Your task to perform on an android device: Empty the shopping cart on target. Add logitech g pro to the cart on target Image 0: 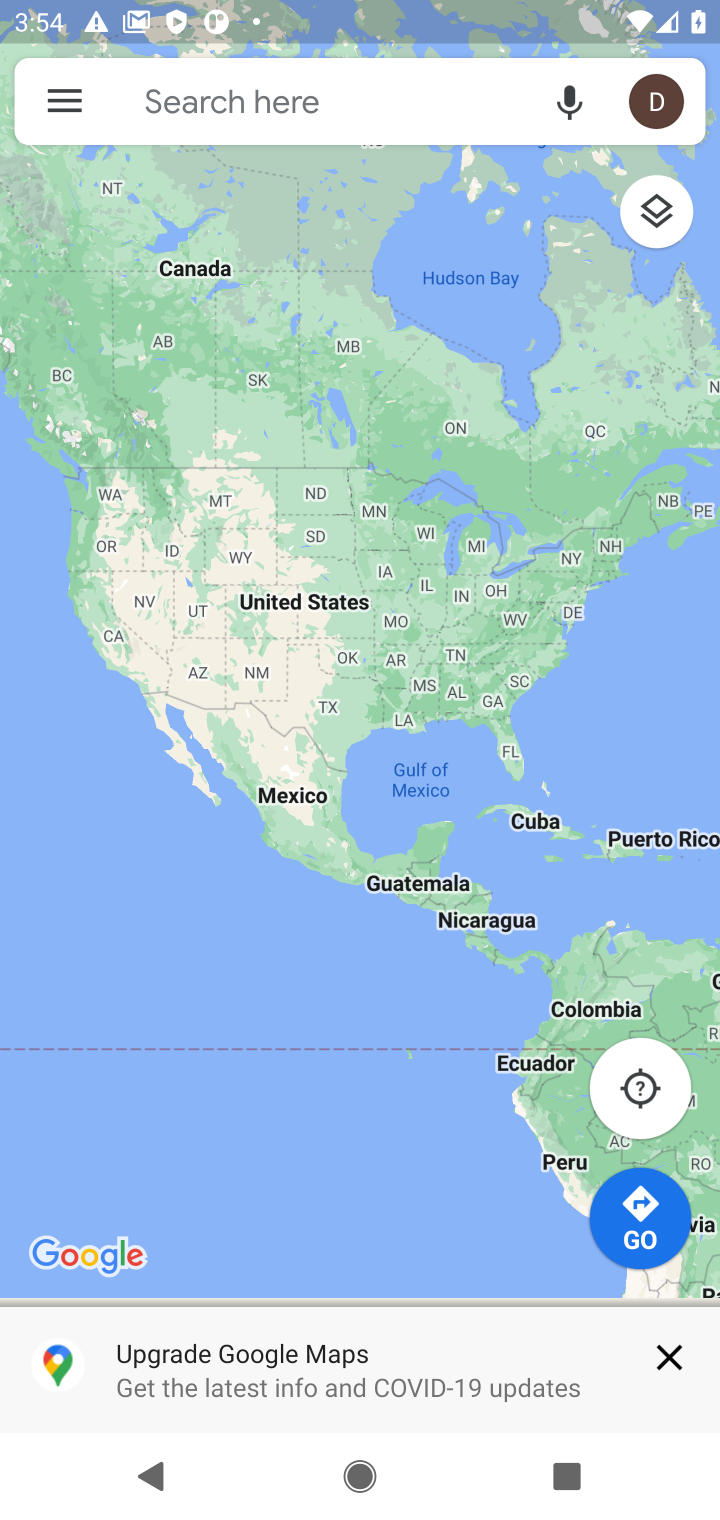
Step 0: press home button
Your task to perform on an android device: Empty the shopping cart on target. Add logitech g pro to the cart on target Image 1: 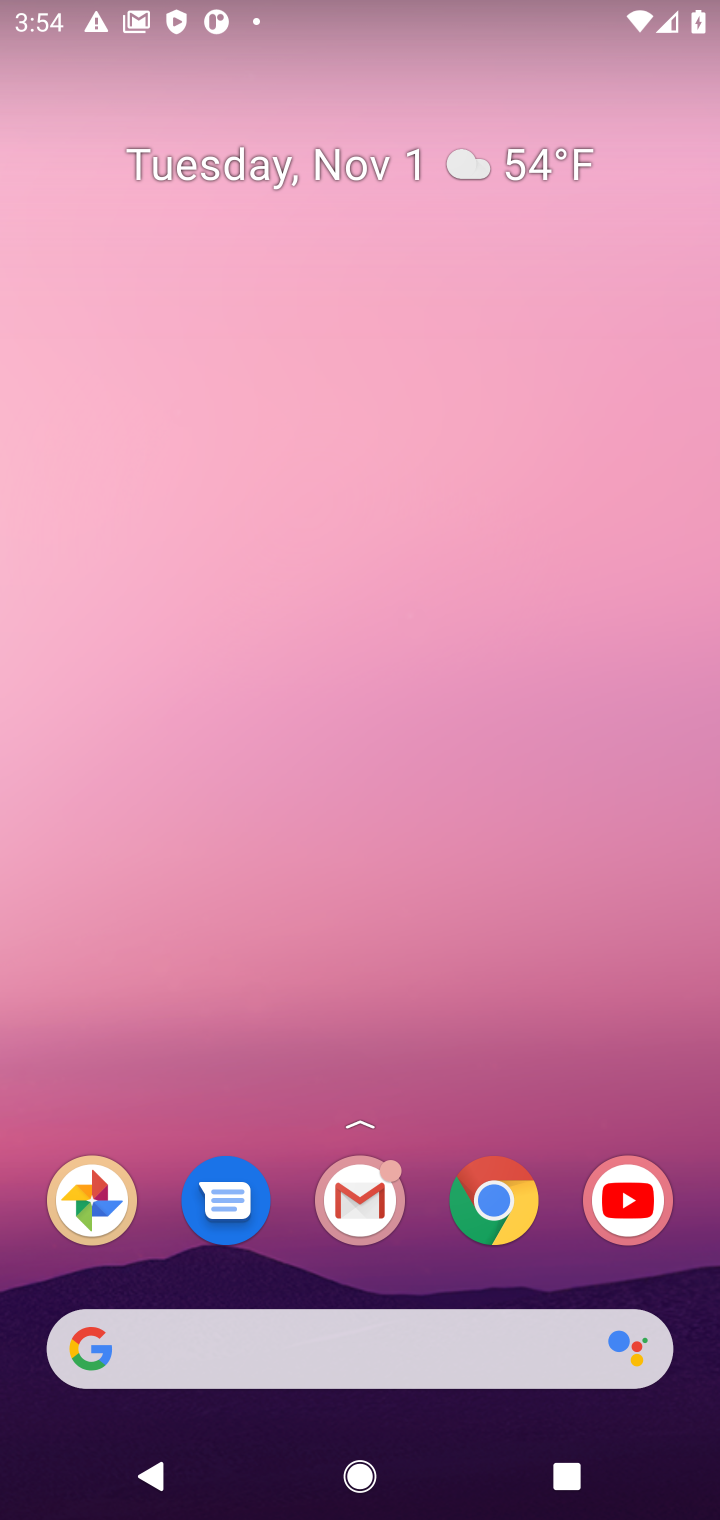
Step 1: click (90, 1345)
Your task to perform on an android device: Empty the shopping cart on target. Add logitech g pro to the cart on target Image 2: 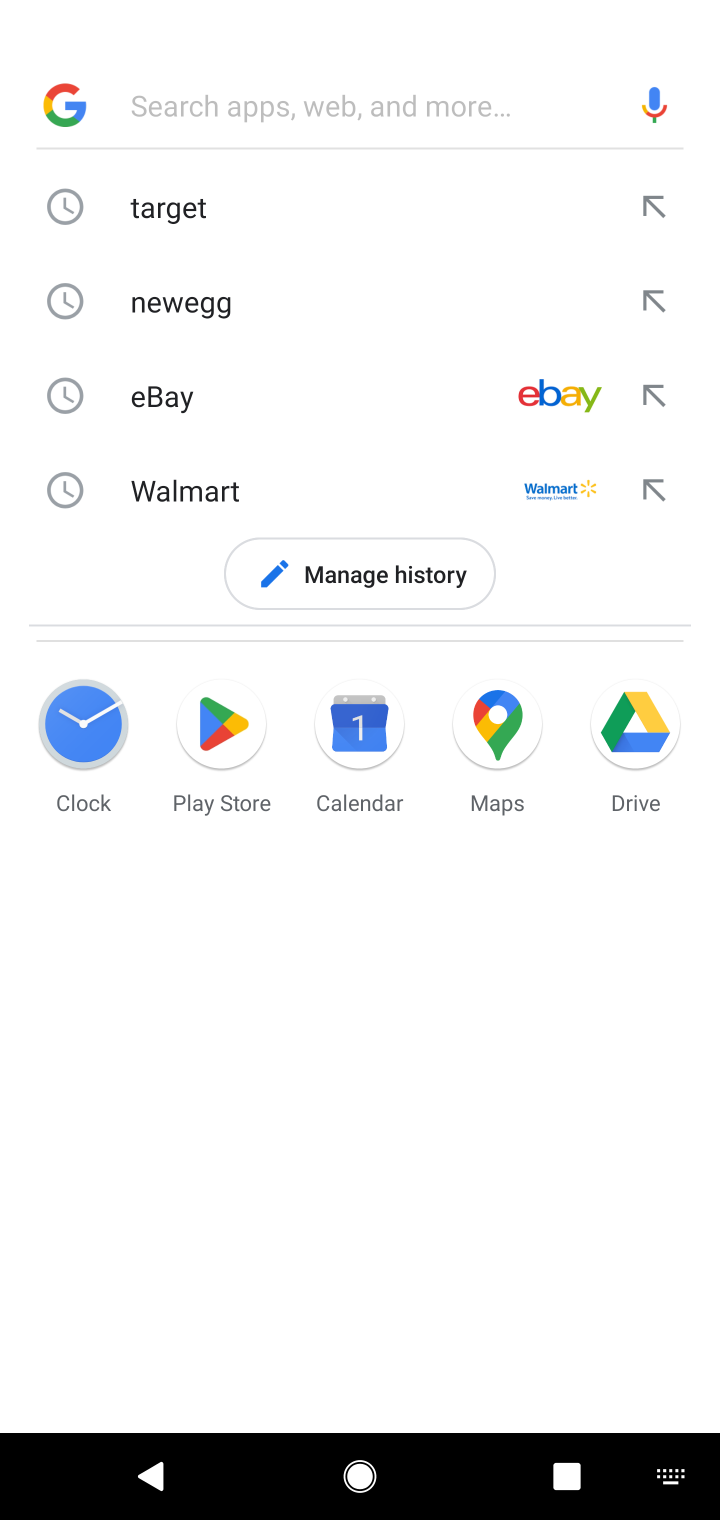
Step 2: click (174, 210)
Your task to perform on an android device: Empty the shopping cart on target. Add logitech g pro to the cart on target Image 3: 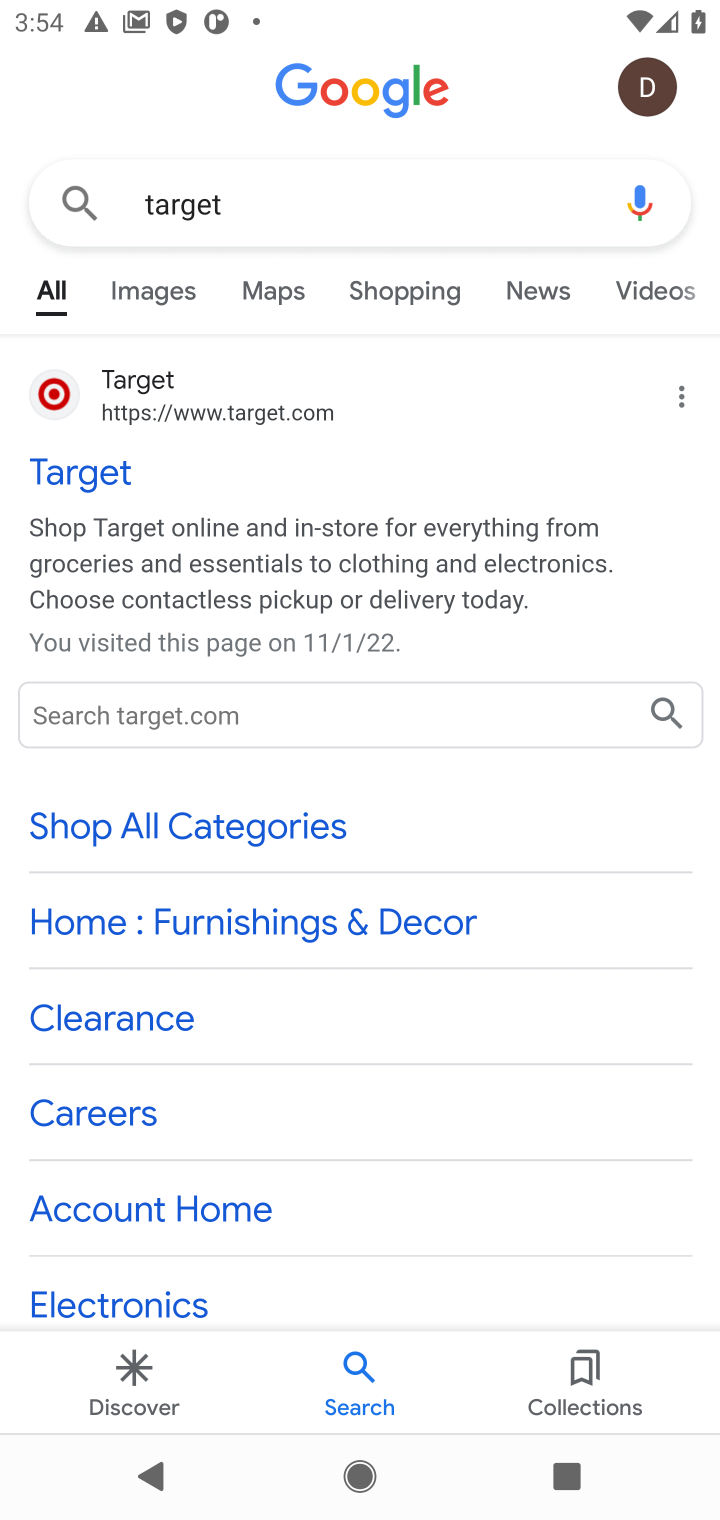
Step 3: click (75, 477)
Your task to perform on an android device: Empty the shopping cart on target. Add logitech g pro to the cart on target Image 4: 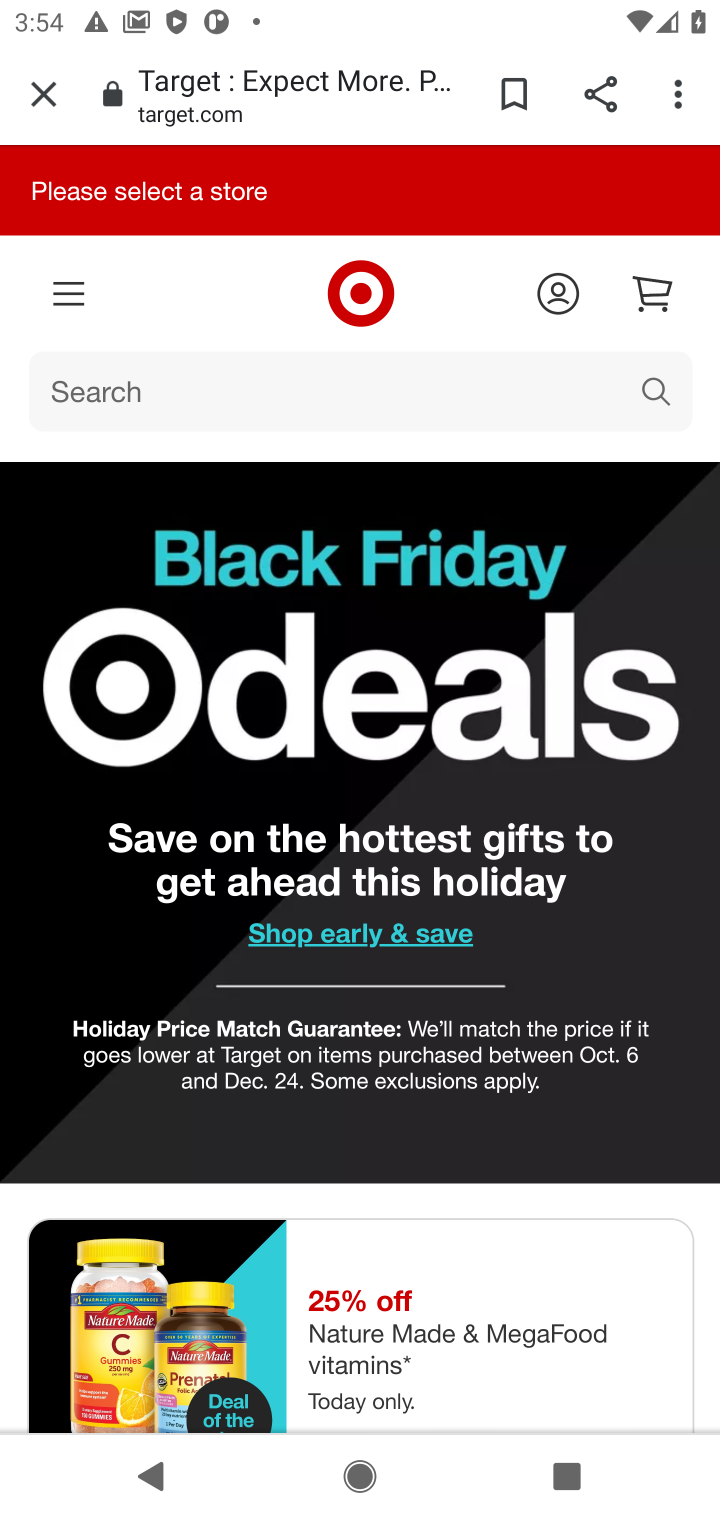
Step 4: click (651, 380)
Your task to perform on an android device: Empty the shopping cart on target. Add logitech g pro to the cart on target Image 5: 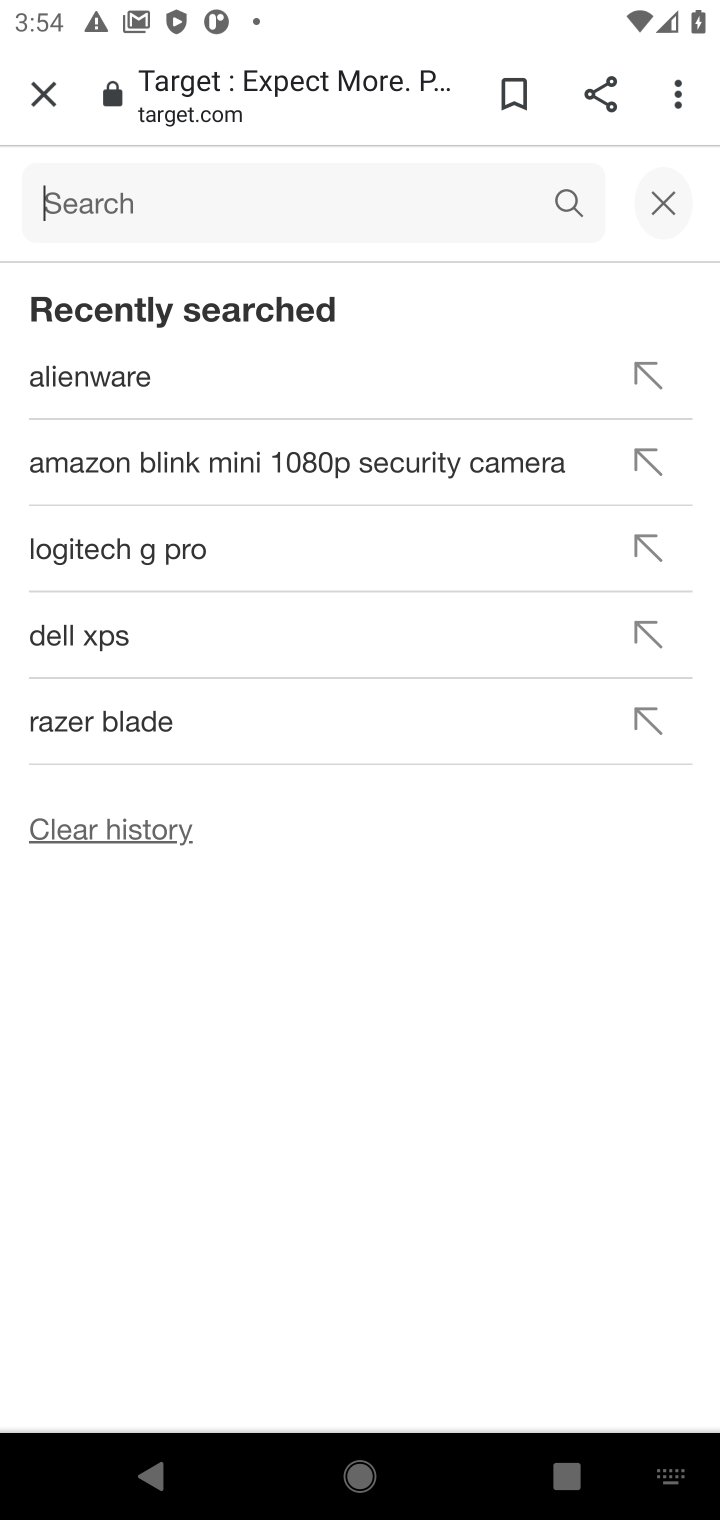
Step 5: type "logitech g pro"
Your task to perform on an android device: Empty the shopping cart on target. Add logitech g pro to the cart on target Image 6: 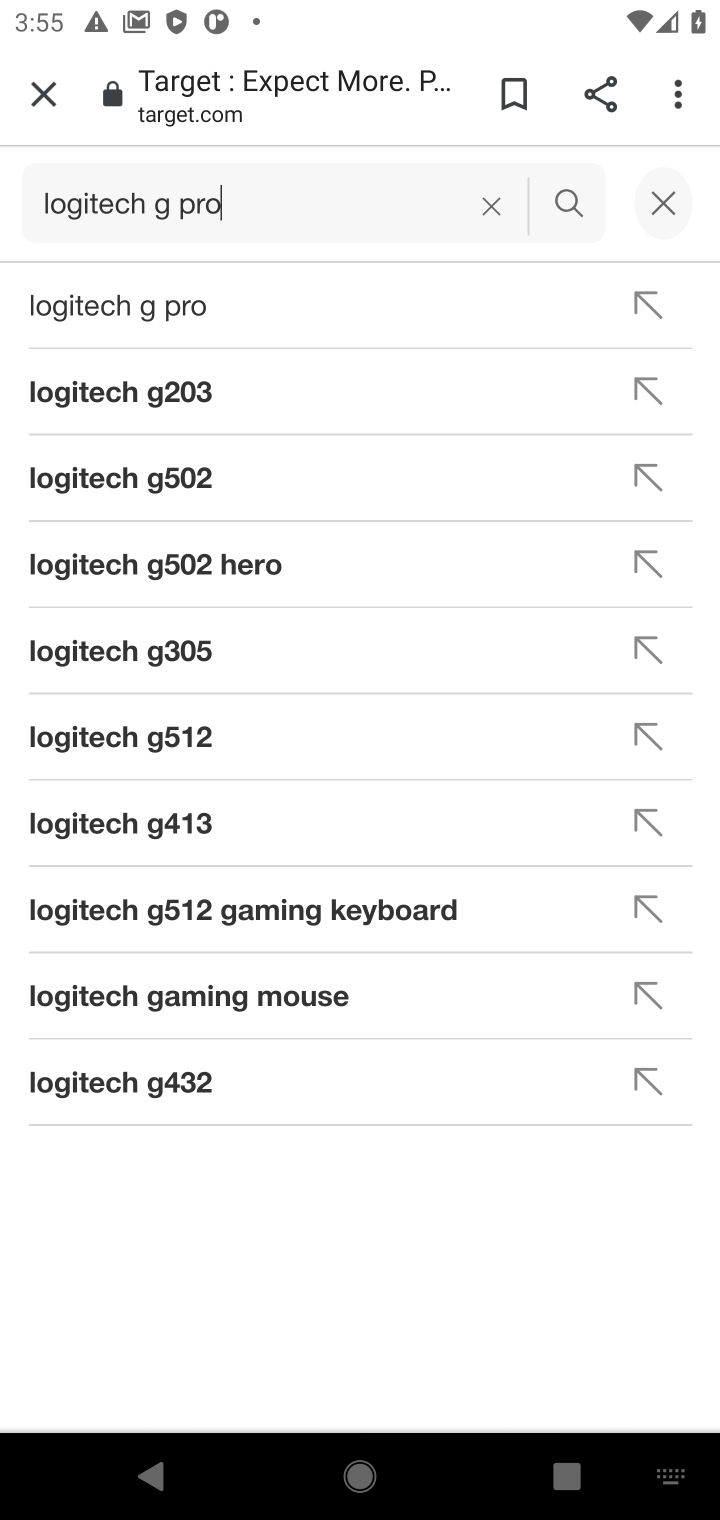
Step 6: click (97, 312)
Your task to perform on an android device: Empty the shopping cart on target. Add logitech g pro to the cart on target Image 7: 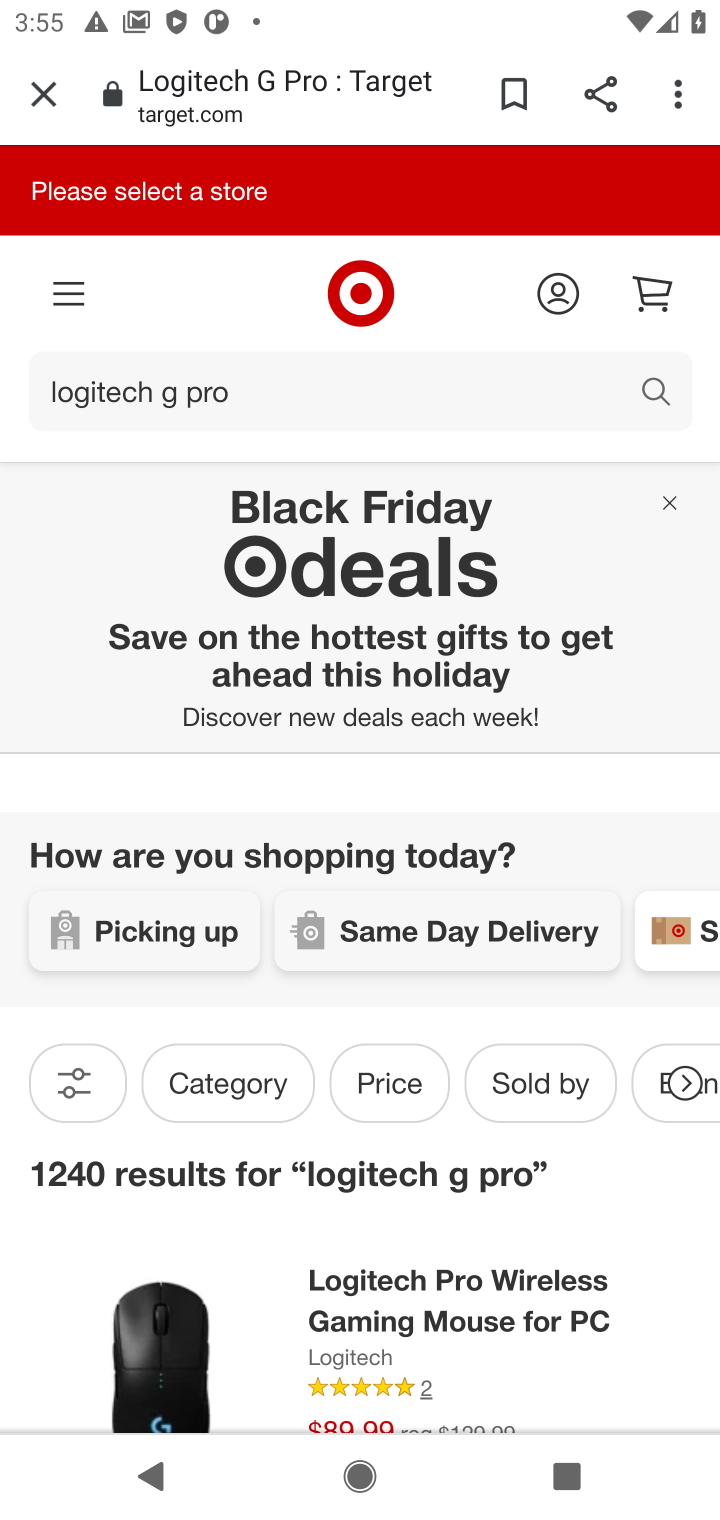
Step 7: click (348, 1314)
Your task to perform on an android device: Empty the shopping cart on target. Add logitech g pro to the cart on target Image 8: 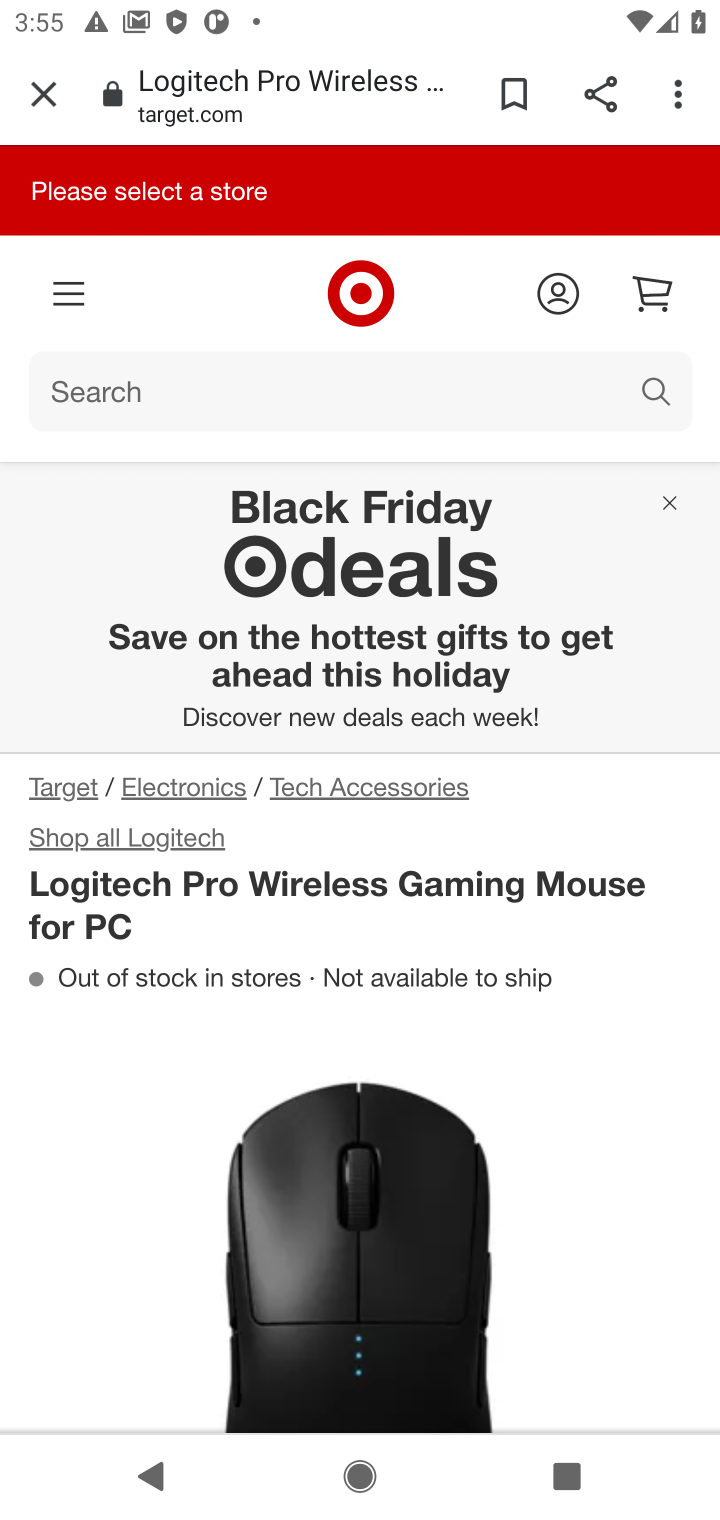
Step 8: drag from (585, 1257) to (517, 250)
Your task to perform on an android device: Empty the shopping cart on target. Add logitech g pro to the cart on target Image 9: 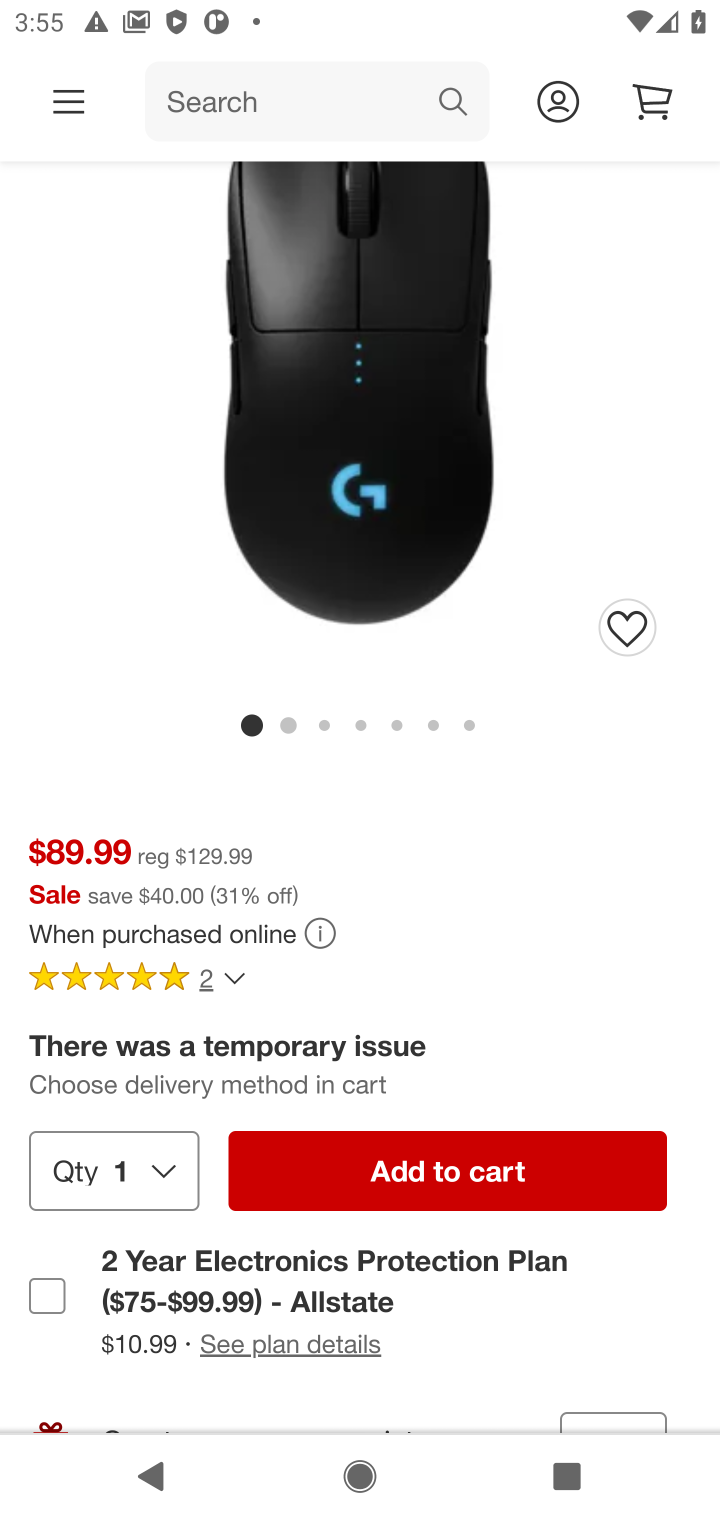
Step 9: click (498, 1160)
Your task to perform on an android device: Empty the shopping cart on target. Add logitech g pro to the cart on target Image 10: 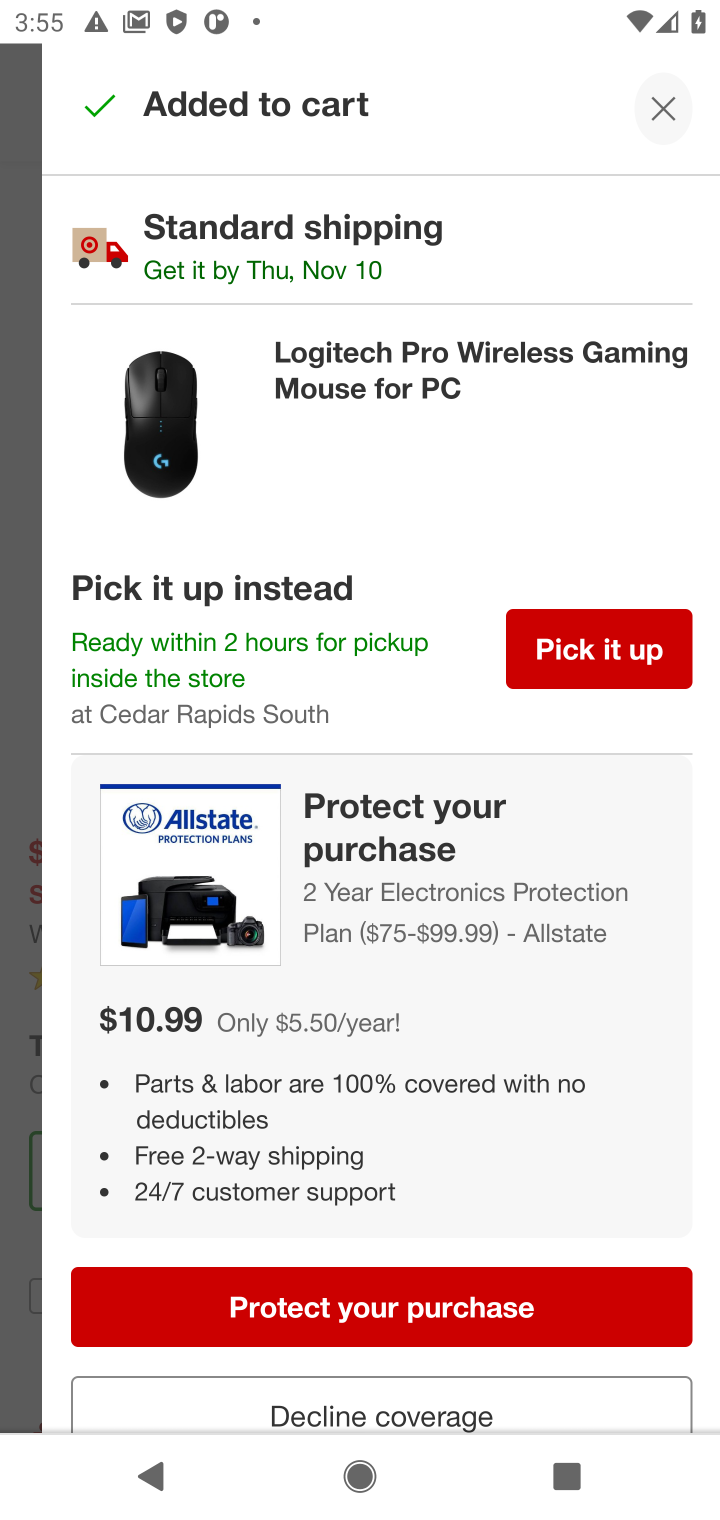
Step 10: task complete